Your task to perform on an android device: Go to Google maps Image 0: 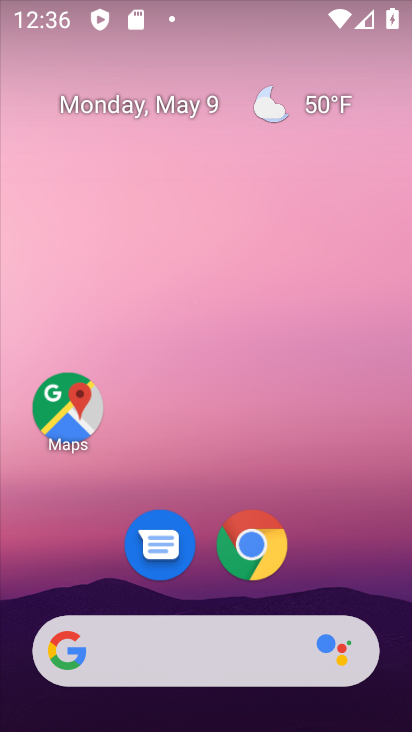
Step 0: click (188, 599)
Your task to perform on an android device: Go to Google maps Image 1: 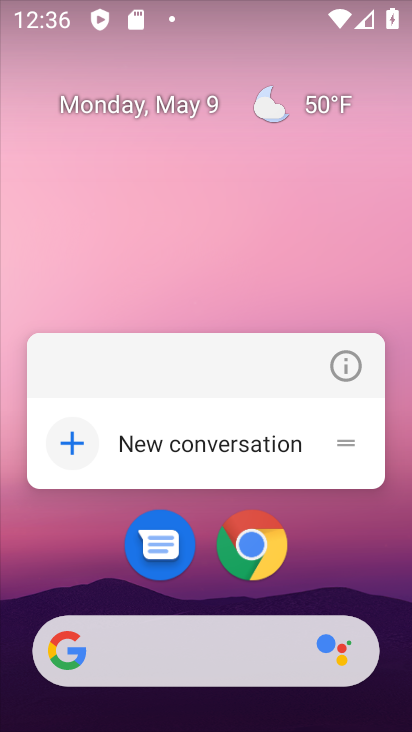
Step 1: click (164, 256)
Your task to perform on an android device: Go to Google maps Image 2: 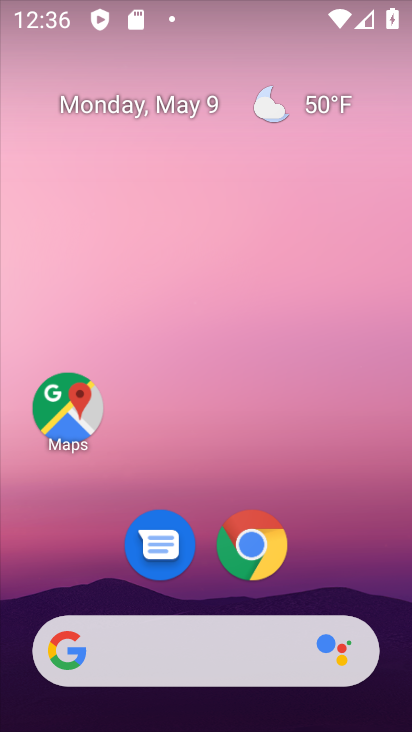
Step 2: click (69, 387)
Your task to perform on an android device: Go to Google maps Image 3: 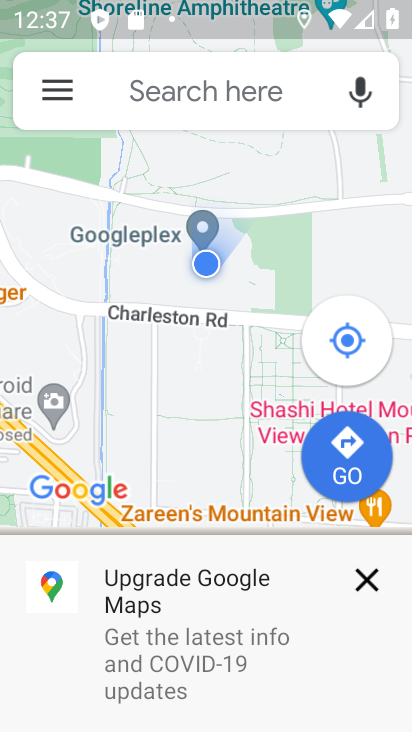
Step 3: task complete